Your task to perform on an android device: See recent photos Image 0: 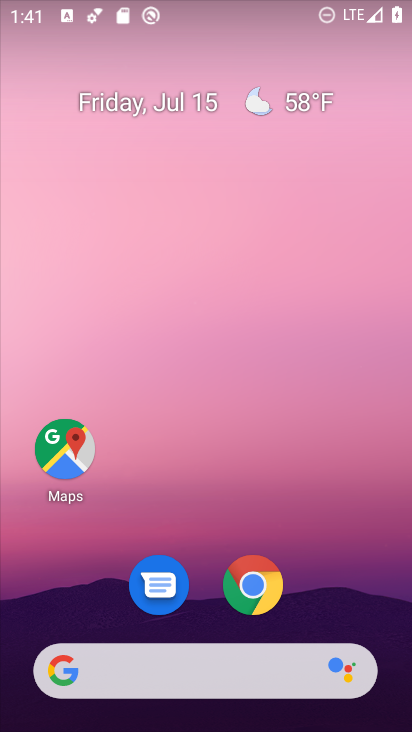
Step 0: drag from (331, 533) to (306, 52)
Your task to perform on an android device: See recent photos Image 1: 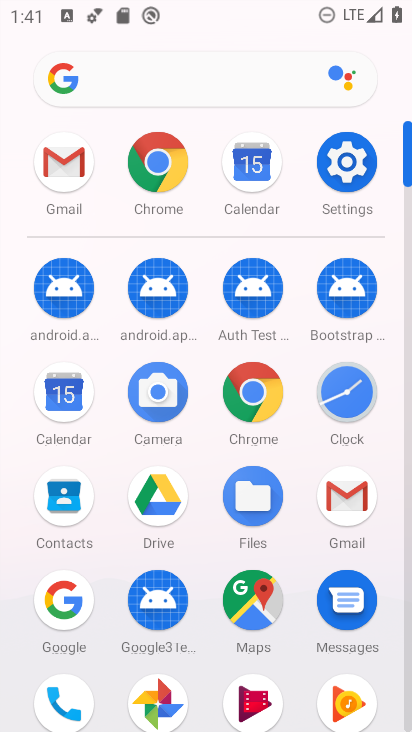
Step 1: click (159, 691)
Your task to perform on an android device: See recent photos Image 2: 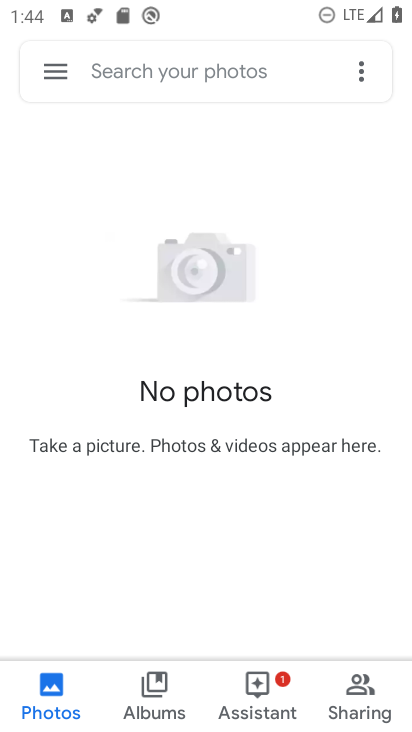
Step 2: task complete